Your task to perform on an android device: Go to notification settings Image 0: 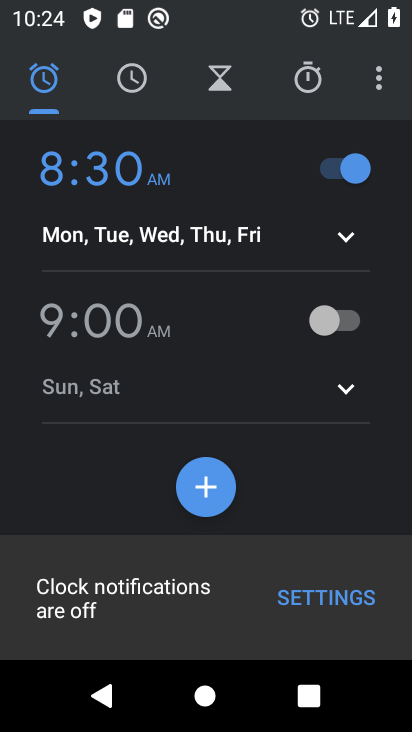
Step 0: drag from (201, 516) to (359, 187)
Your task to perform on an android device: Go to notification settings Image 1: 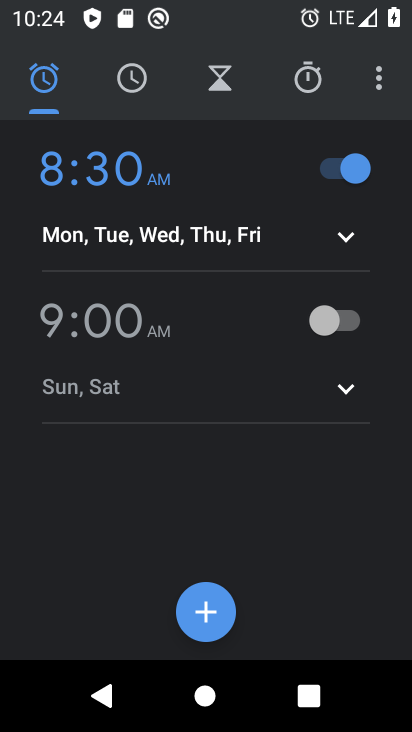
Step 1: click (382, 85)
Your task to perform on an android device: Go to notification settings Image 2: 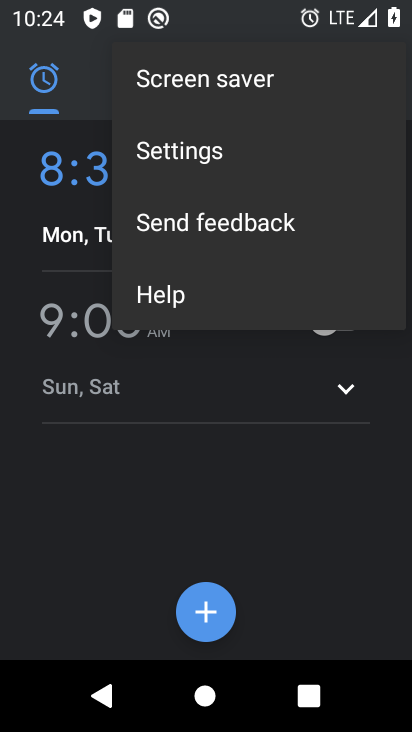
Step 2: press home button
Your task to perform on an android device: Go to notification settings Image 3: 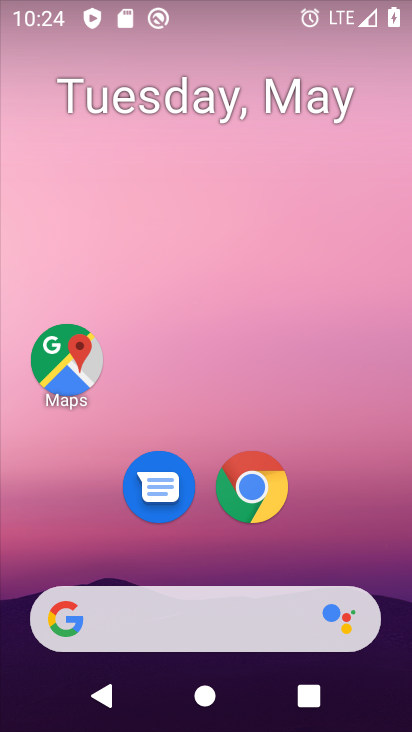
Step 3: drag from (182, 560) to (181, 250)
Your task to perform on an android device: Go to notification settings Image 4: 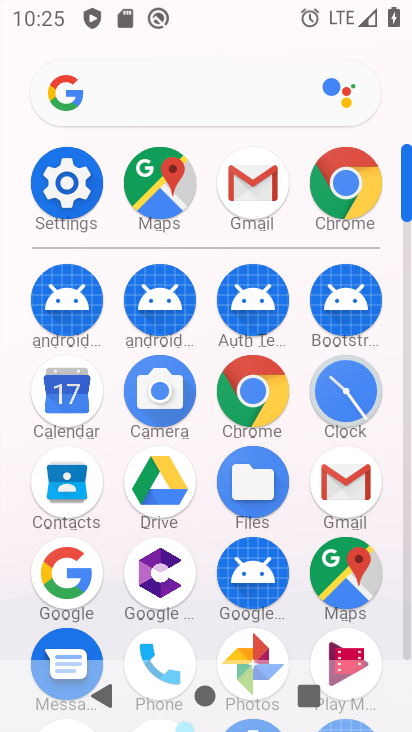
Step 4: click (79, 200)
Your task to perform on an android device: Go to notification settings Image 5: 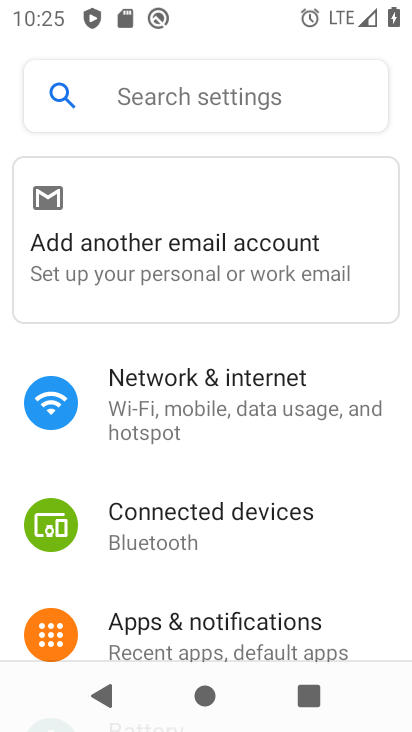
Step 5: drag from (229, 539) to (266, 242)
Your task to perform on an android device: Go to notification settings Image 6: 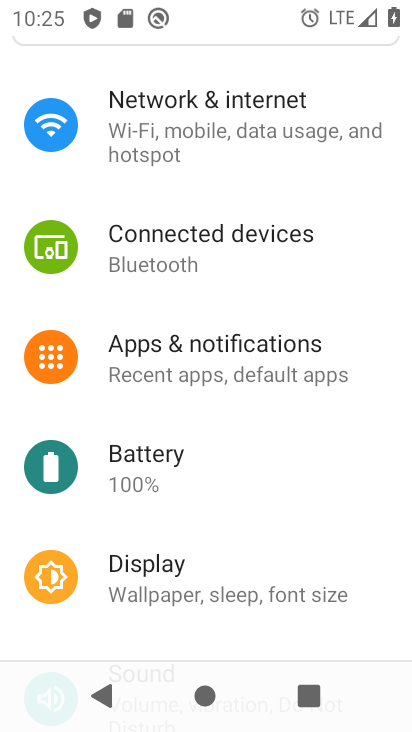
Step 6: click (234, 361)
Your task to perform on an android device: Go to notification settings Image 7: 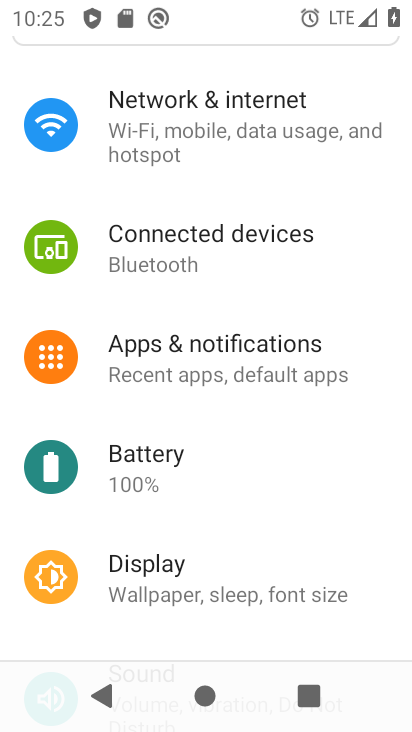
Step 7: click (234, 361)
Your task to perform on an android device: Go to notification settings Image 8: 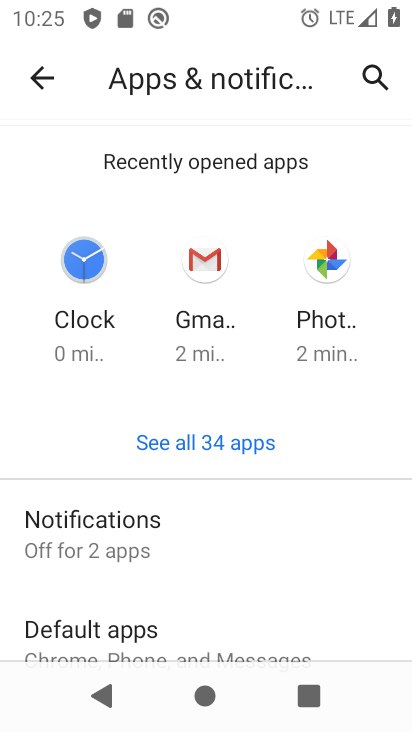
Step 8: task complete